Your task to perform on an android device: Search for "rayovac triple a" on walmart.com, select the first entry, add it to the cart, then select checkout. Image 0: 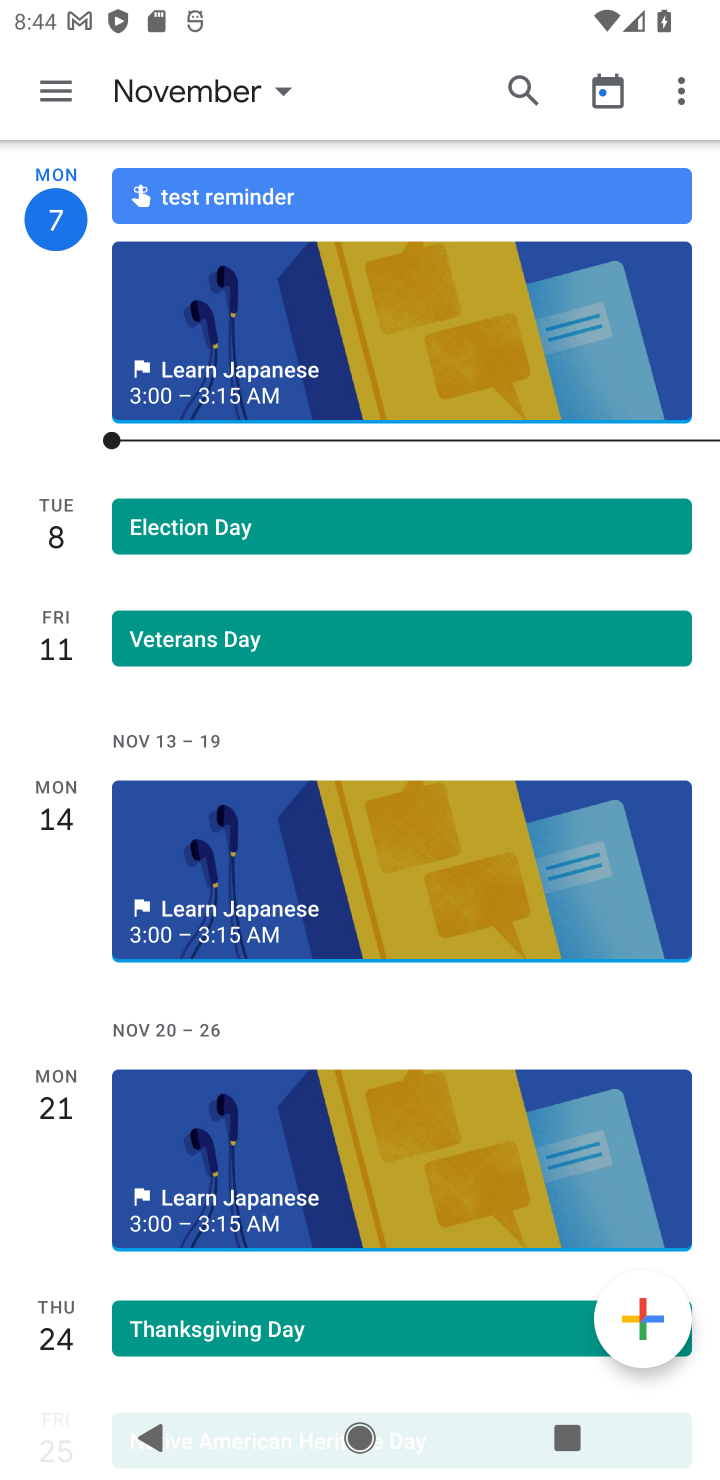
Step 0: press home button
Your task to perform on an android device: Search for "rayovac triple a" on walmart.com, select the first entry, add it to the cart, then select checkout. Image 1: 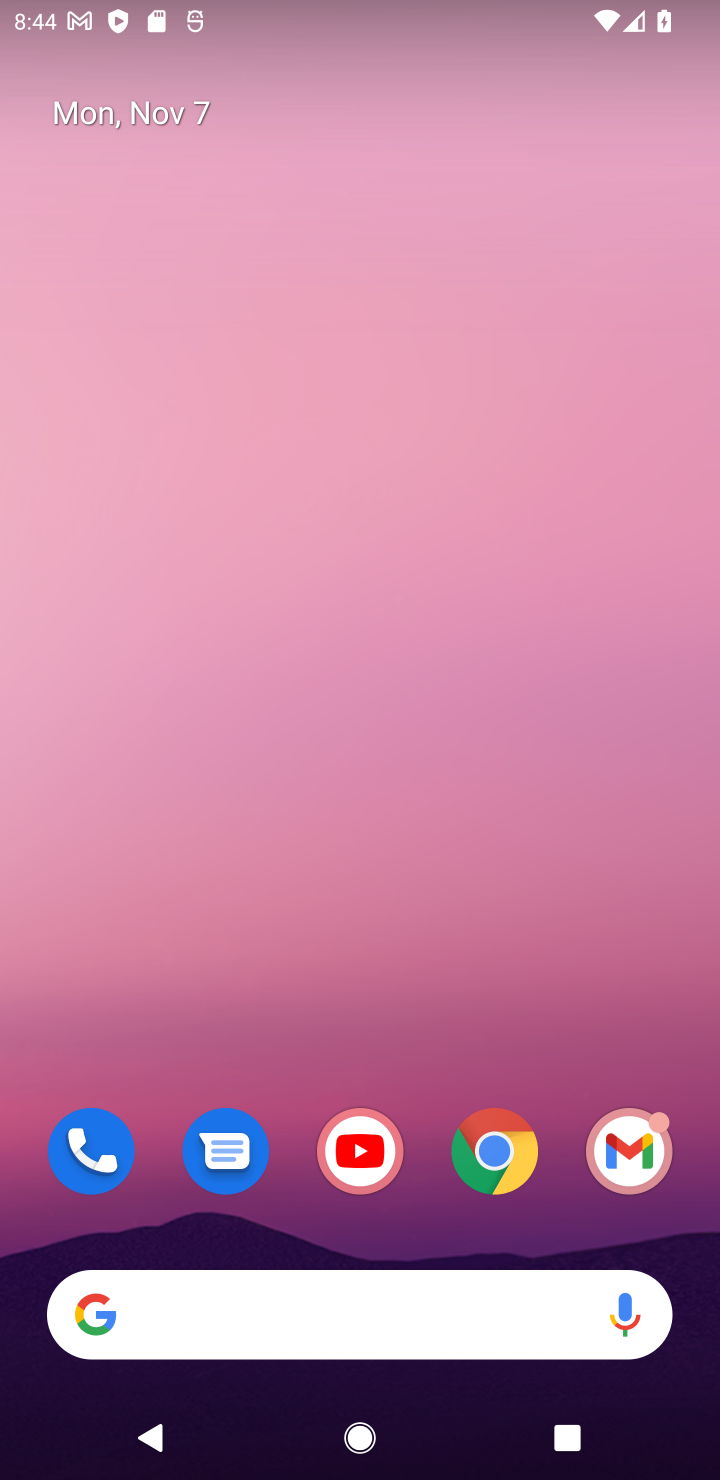
Step 1: click (503, 1144)
Your task to perform on an android device: Search for "rayovac triple a" on walmart.com, select the first entry, add it to the cart, then select checkout. Image 2: 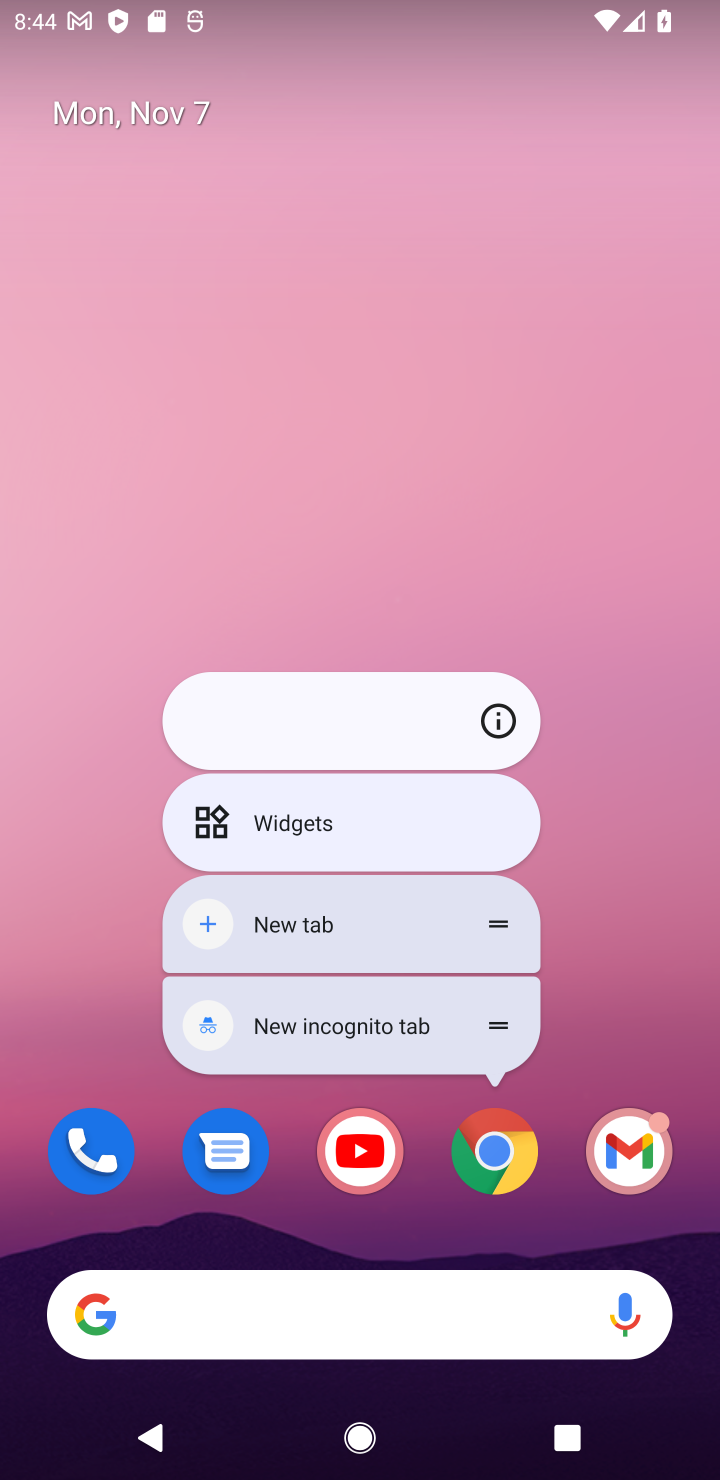
Step 2: click (493, 1154)
Your task to perform on an android device: Search for "rayovac triple a" on walmart.com, select the first entry, add it to the cart, then select checkout. Image 3: 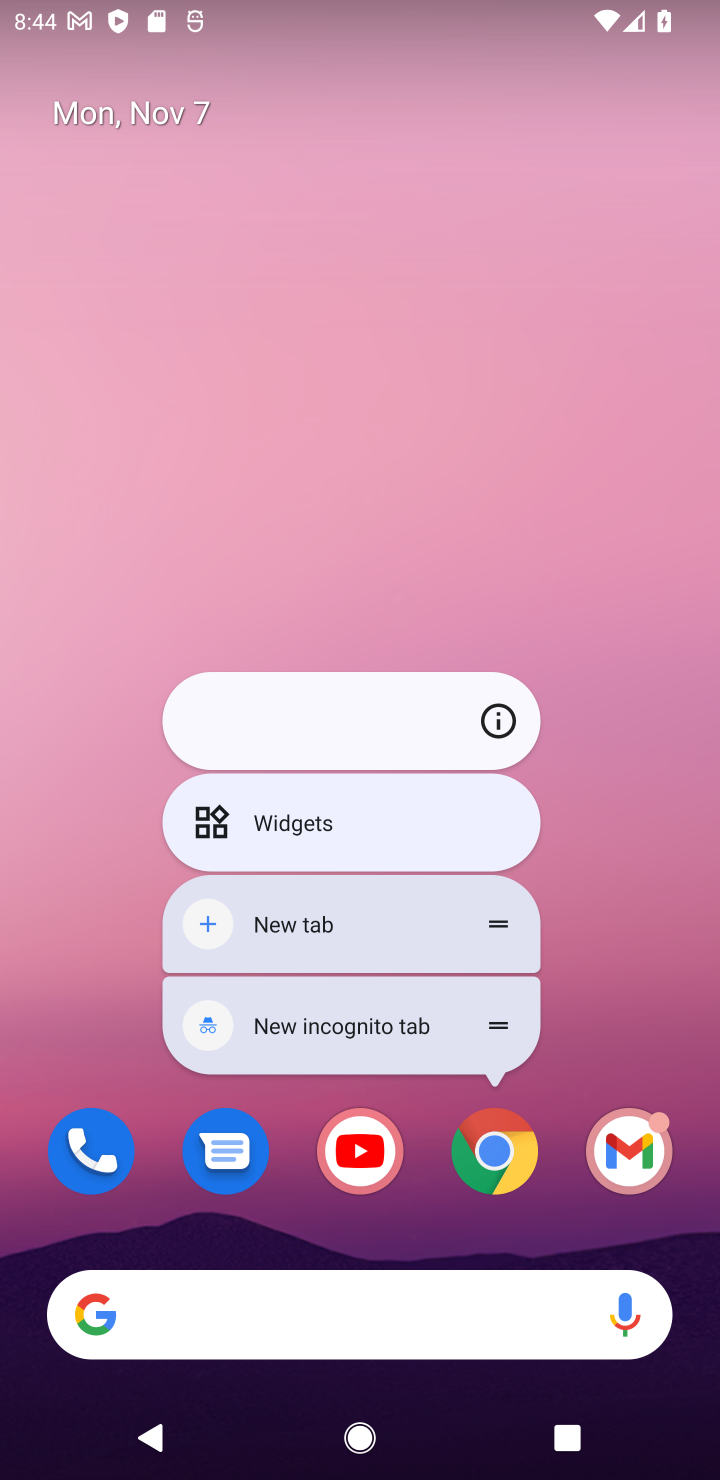
Step 3: click (502, 1165)
Your task to perform on an android device: Search for "rayovac triple a" on walmart.com, select the first entry, add it to the cart, then select checkout. Image 4: 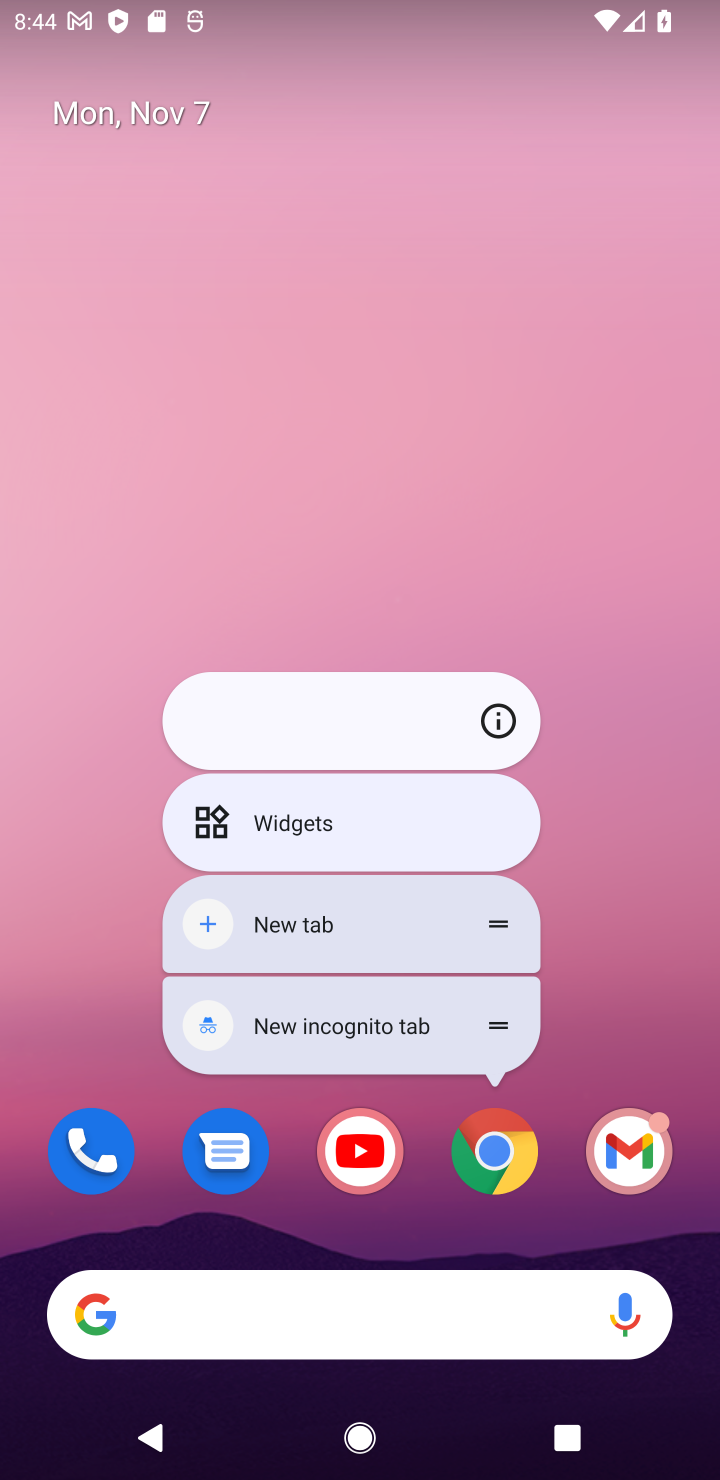
Step 4: click (499, 1154)
Your task to perform on an android device: Search for "rayovac triple a" on walmart.com, select the first entry, add it to the cart, then select checkout. Image 5: 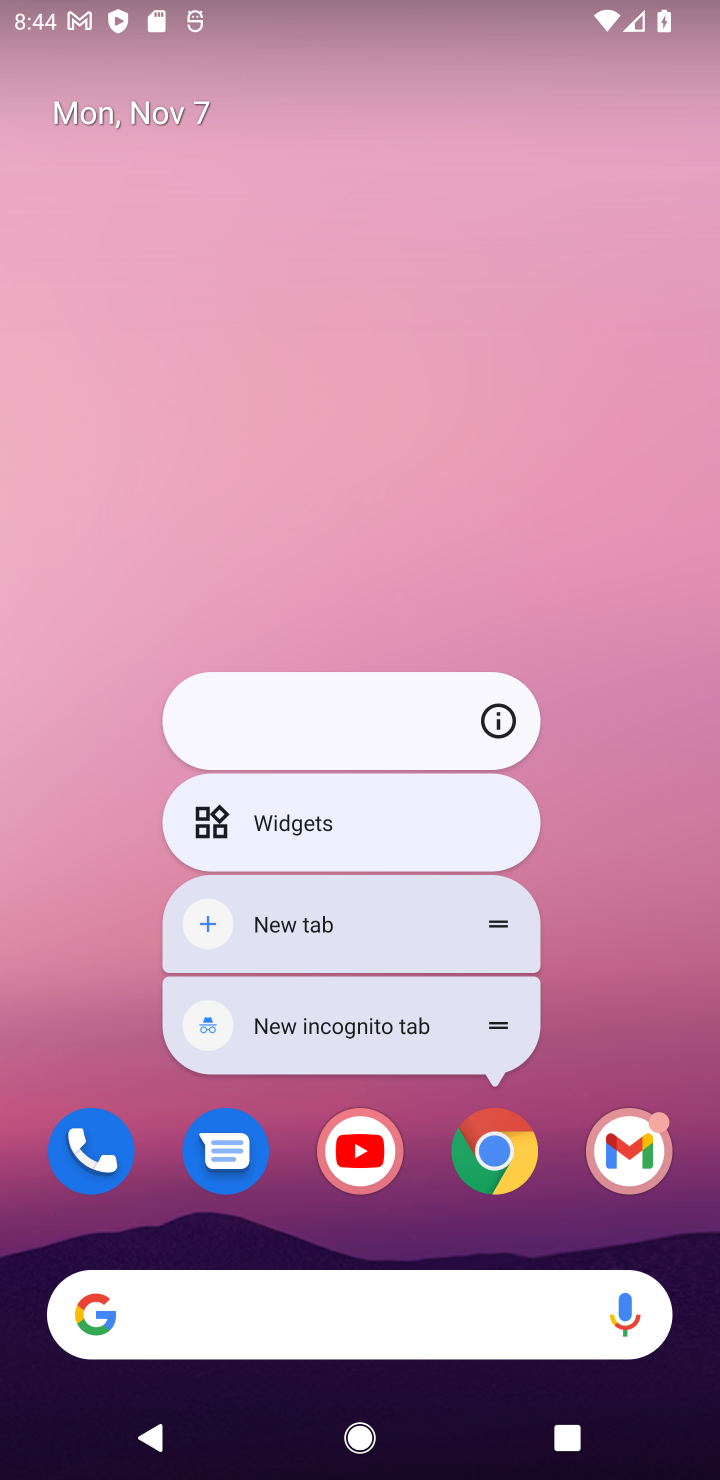
Step 5: click (499, 1156)
Your task to perform on an android device: Search for "rayovac triple a" on walmart.com, select the first entry, add it to the cart, then select checkout. Image 6: 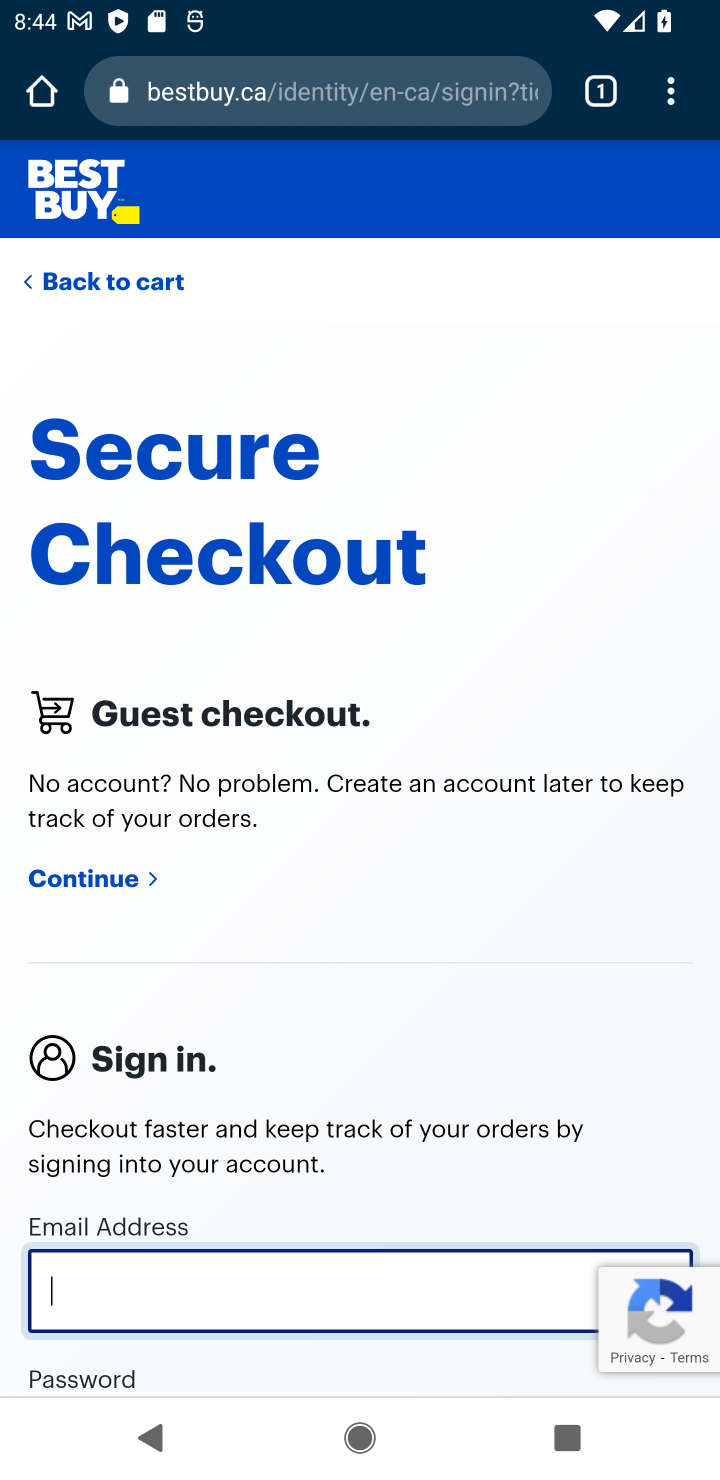
Step 6: click (296, 84)
Your task to perform on an android device: Search for "rayovac triple a" on walmart.com, select the first entry, add it to the cart, then select checkout. Image 7: 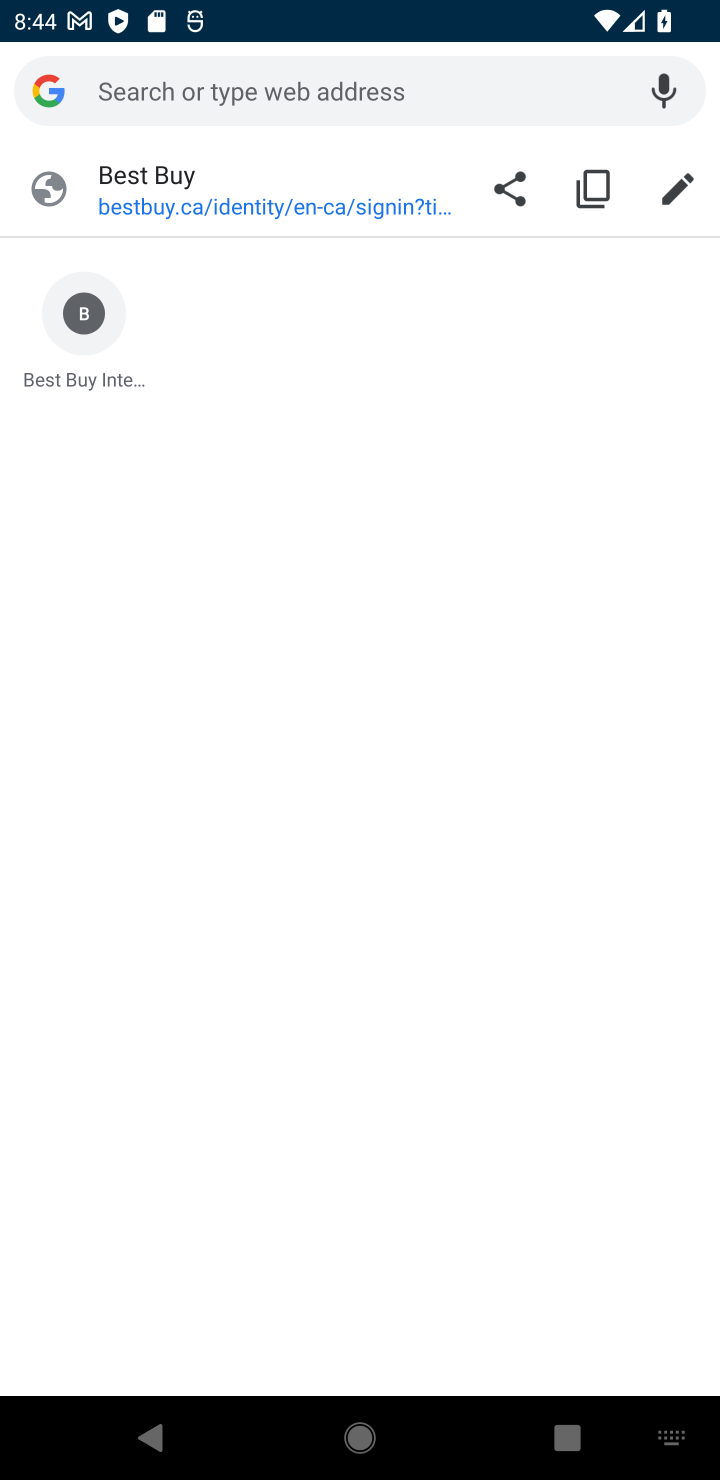
Step 7: type "walmart.com"
Your task to perform on an android device: Search for "rayovac triple a" on walmart.com, select the first entry, add it to the cart, then select checkout. Image 8: 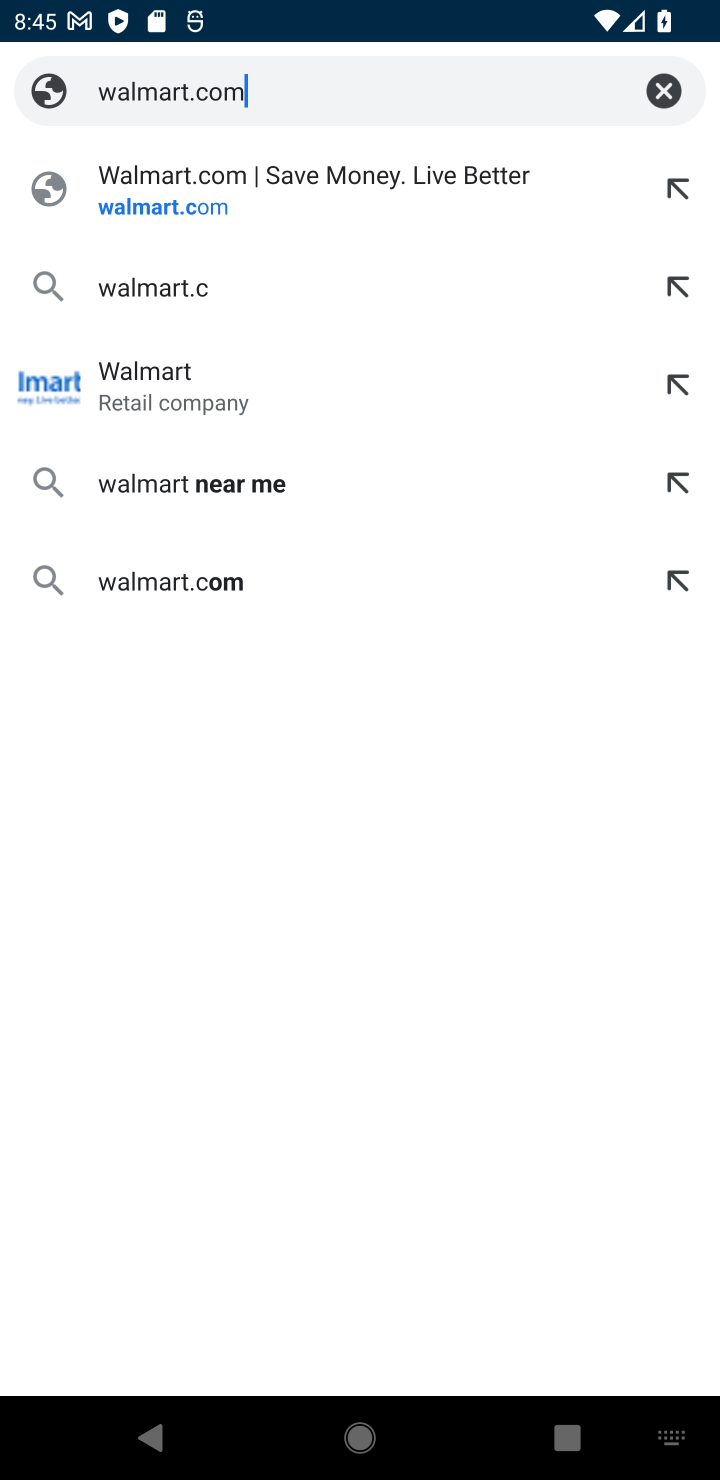
Step 8: press enter
Your task to perform on an android device: Search for "rayovac triple a" on walmart.com, select the first entry, add it to the cart, then select checkout. Image 9: 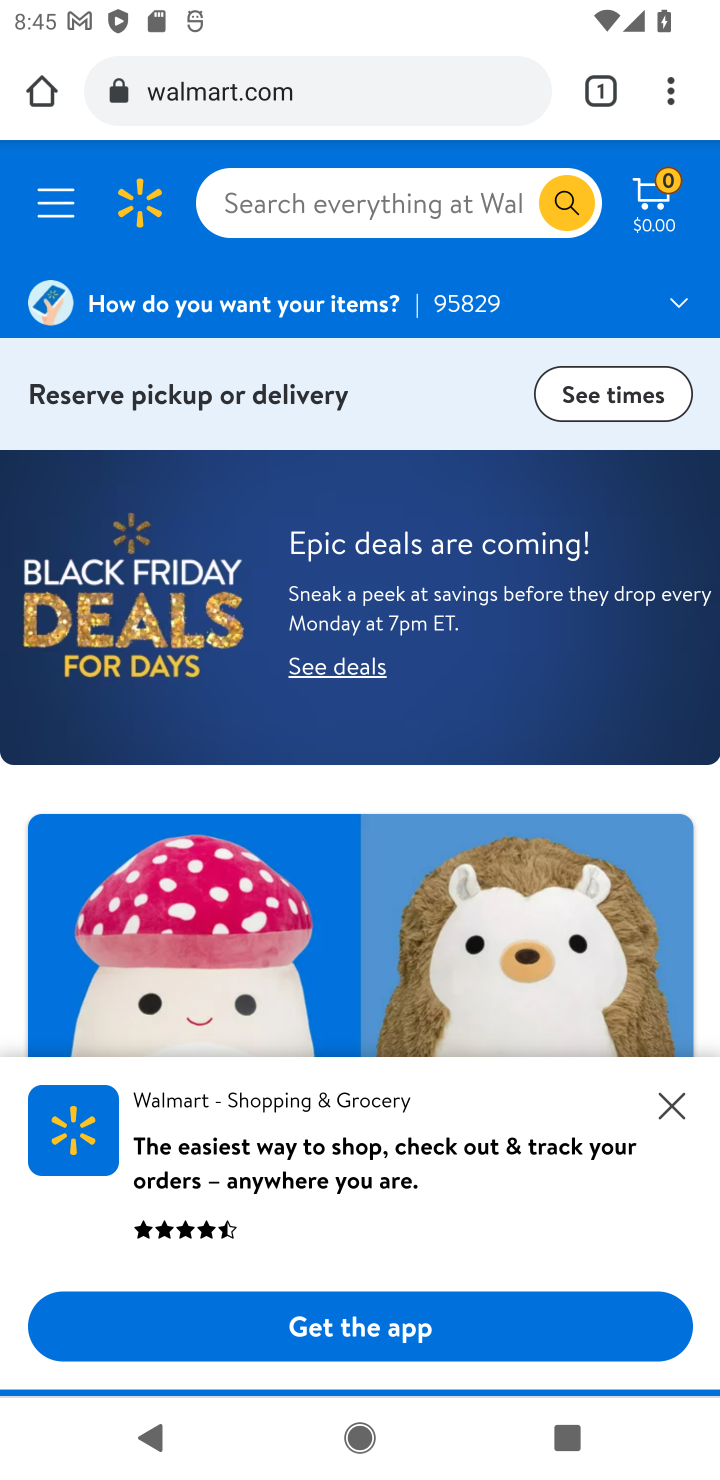
Step 9: click (346, 184)
Your task to perform on an android device: Search for "rayovac triple a" on walmart.com, select the first entry, add it to the cart, then select checkout. Image 10: 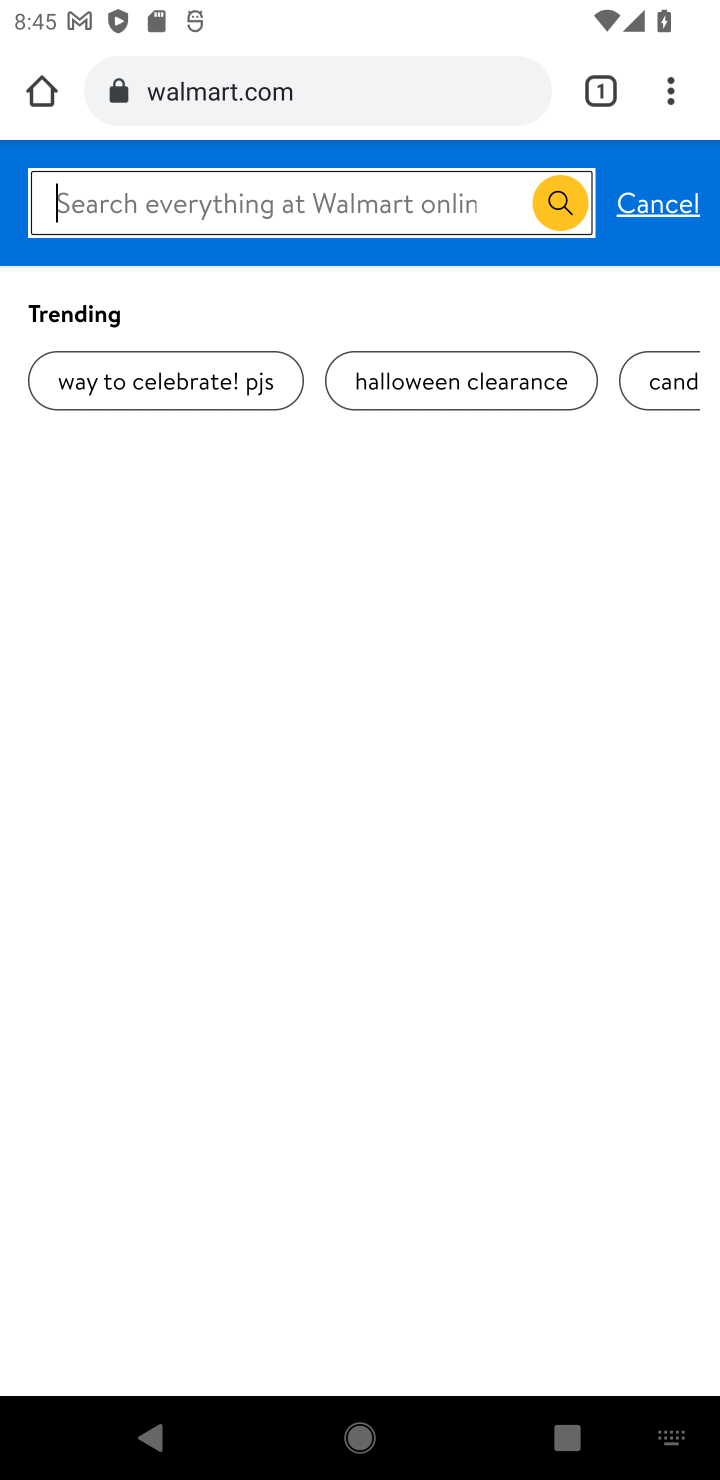
Step 10: type "rayovac triple a"
Your task to perform on an android device: Search for "rayovac triple a" on walmart.com, select the first entry, add it to the cart, then select checkout. Image 11: 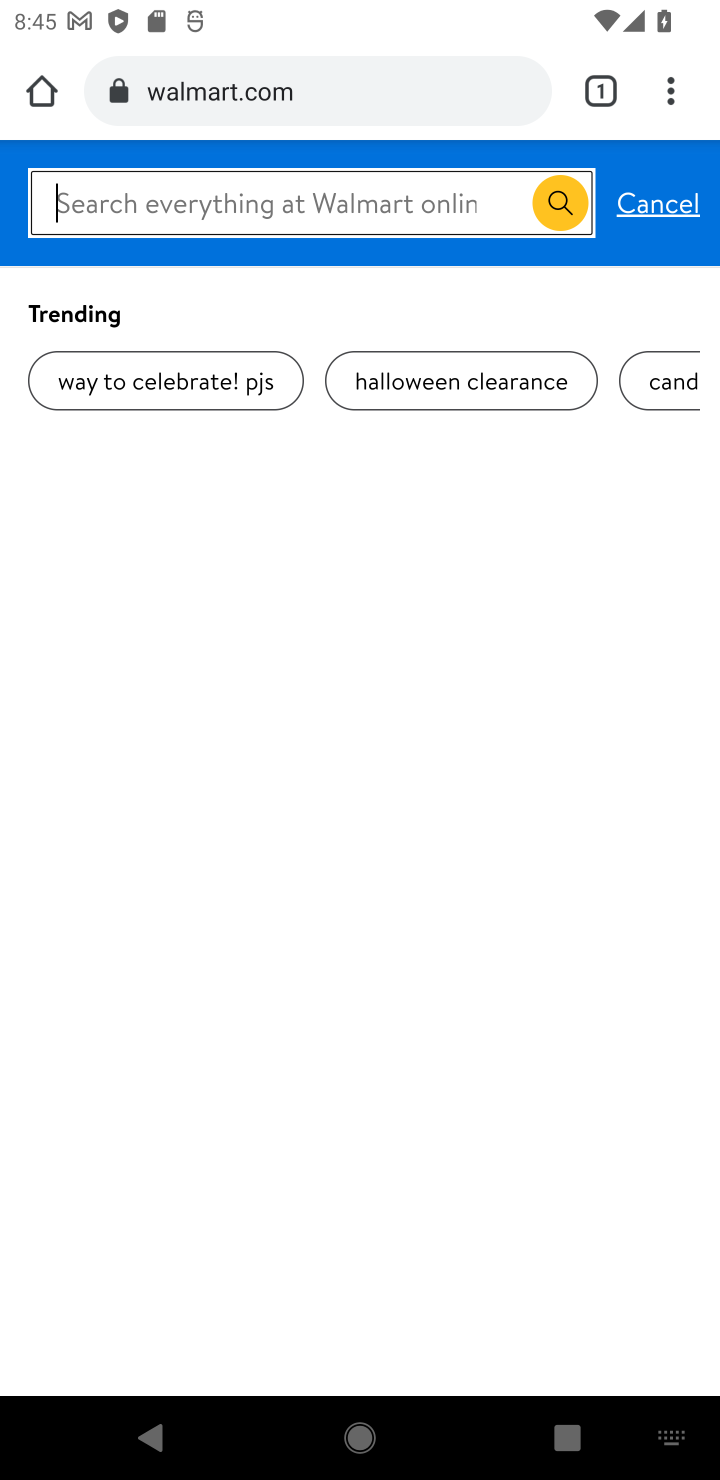
Step 11: press enter
Your task to perform on an android device: Search for "rayovac triple a" on walmart.com, select the first entry, add it to the cart, then select checkout. Image 12: 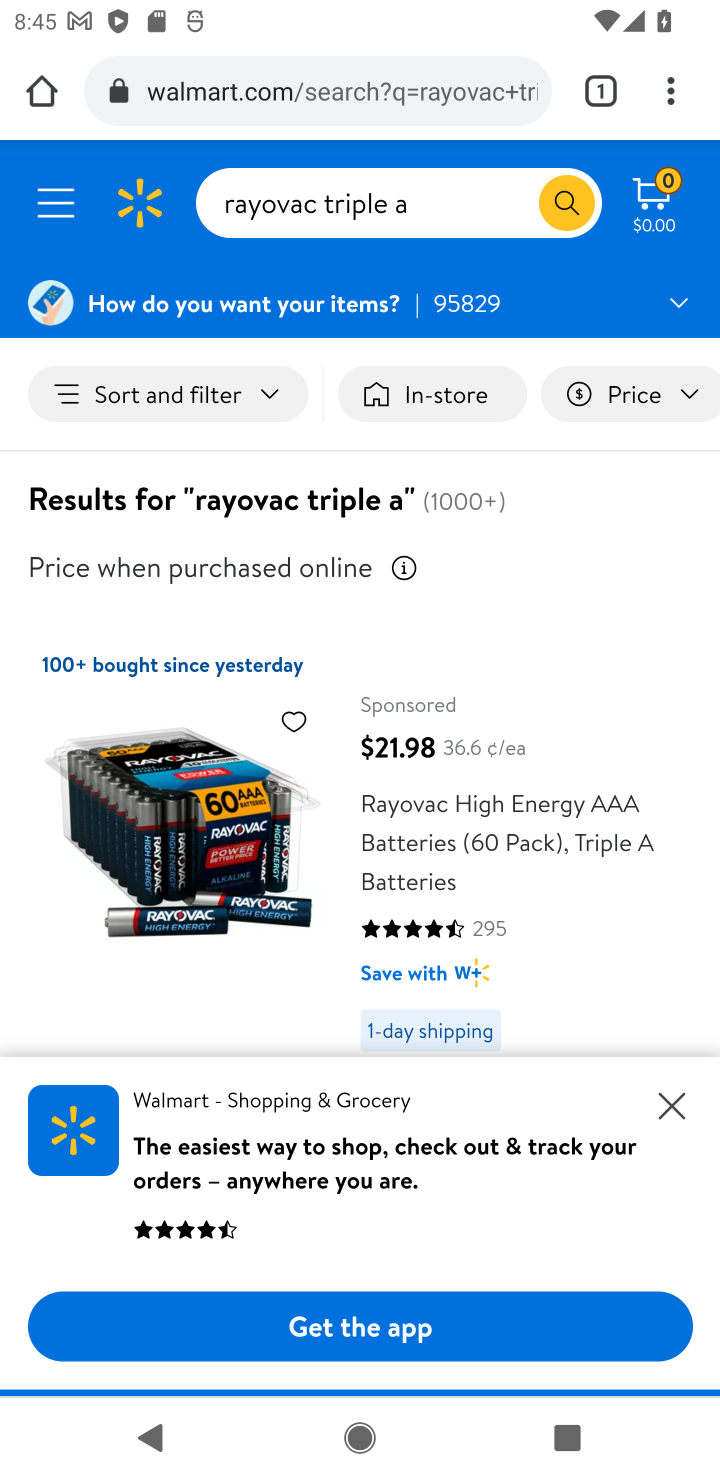
Step 12: click (670, 1105)
Your task to perform on an android device: Search for "rayovac triple a" on walmart.com, select the first entry, add it to the cart, then select checkout. Image 13: 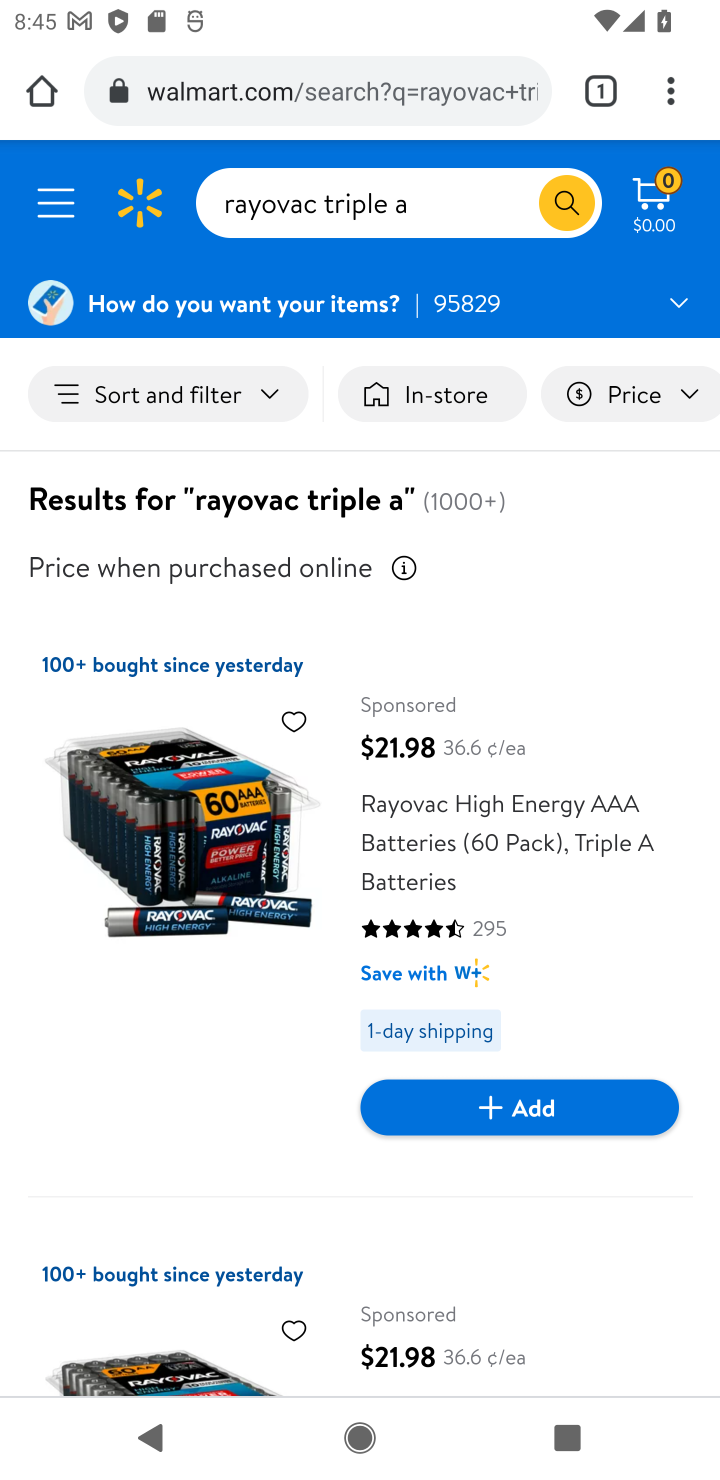
Step 13: click (424, 834)
Your task to perform on an android device: Search for "rayovac triple a" on walmart.com, select the first entry, add it to the cart, then select checkout. Image 14: 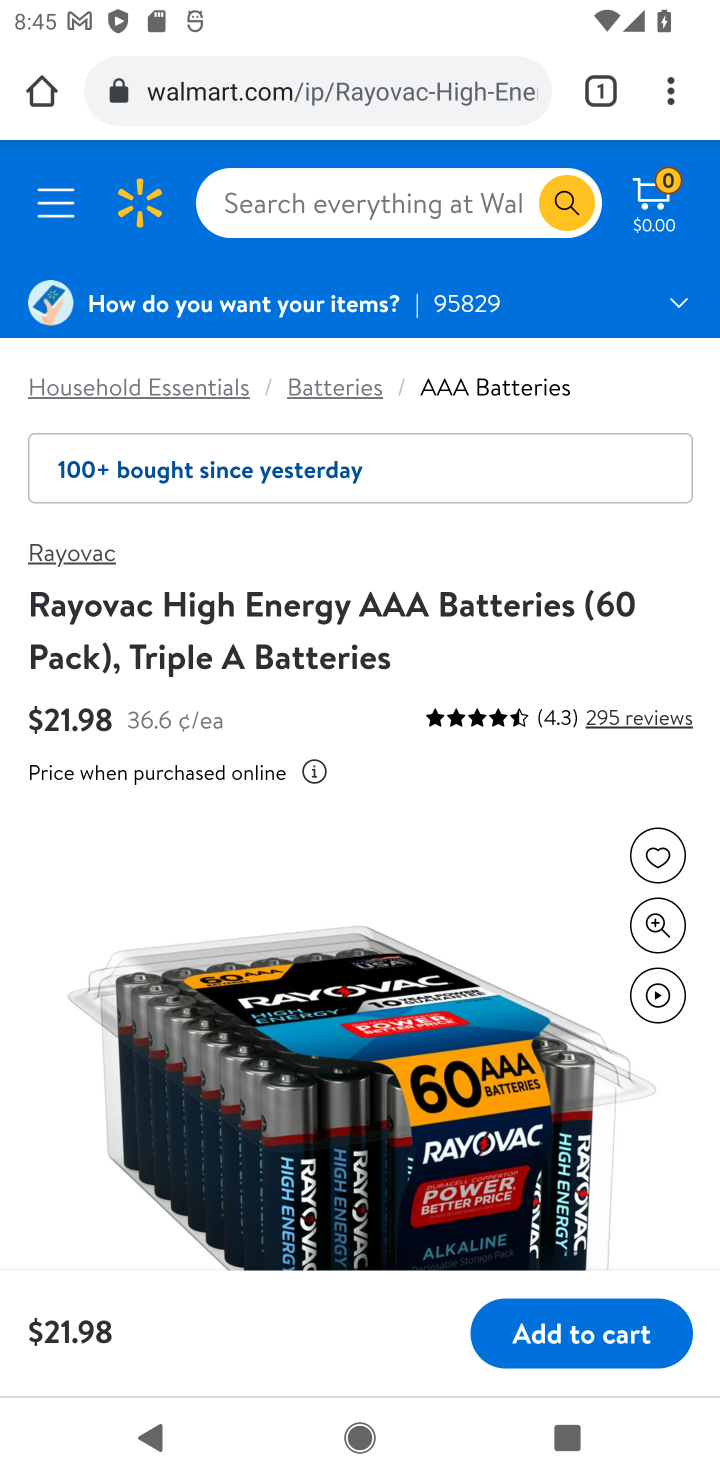
Step 14: click (573, 1332)
Your task to perform on an android device: Search for "rayovac triple a" on walmart.com, select the first entry, add it to the cart, then select checkout. Image 15: 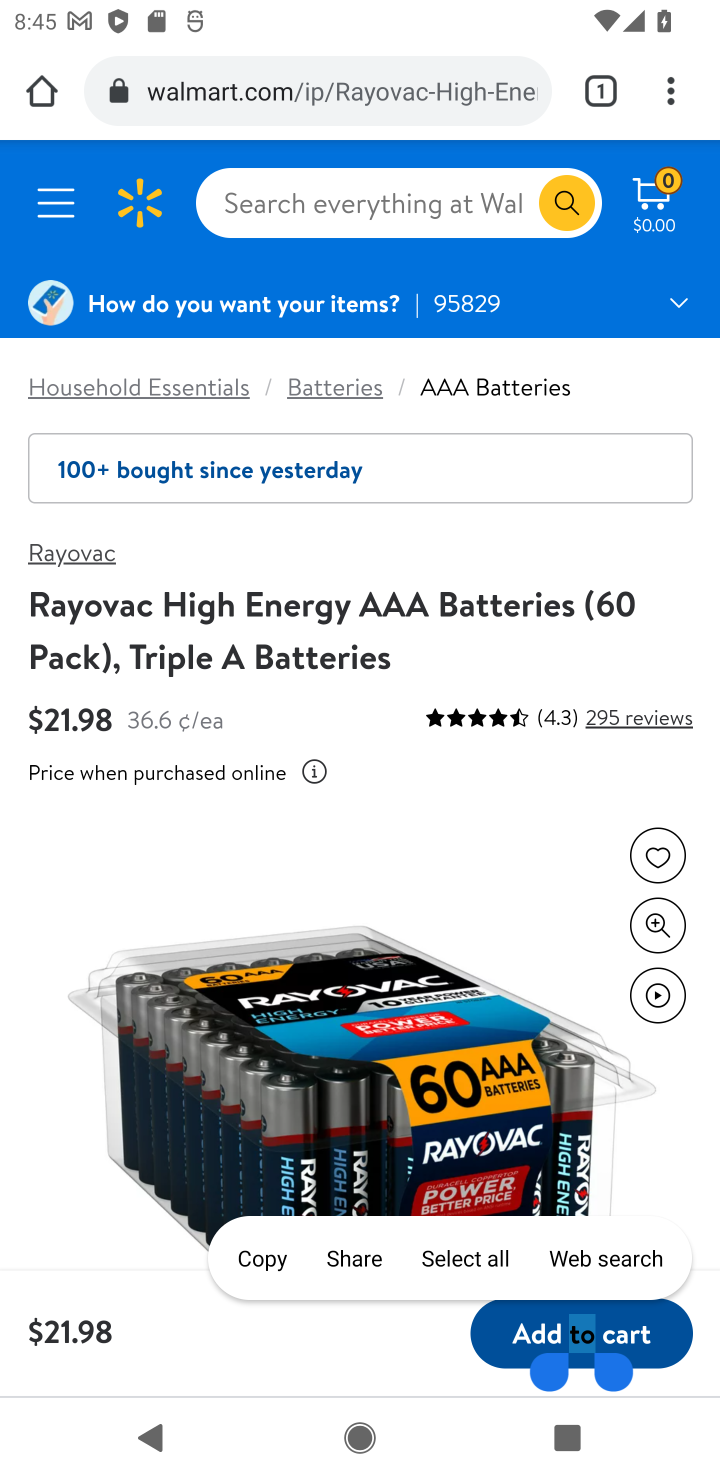
Step 15: click (598, 1333)
Your task to perform on an android device: Search for "rayovac triple a" on walmart.com, select the first entry, add it to the cart, then select checkout. Image 16: 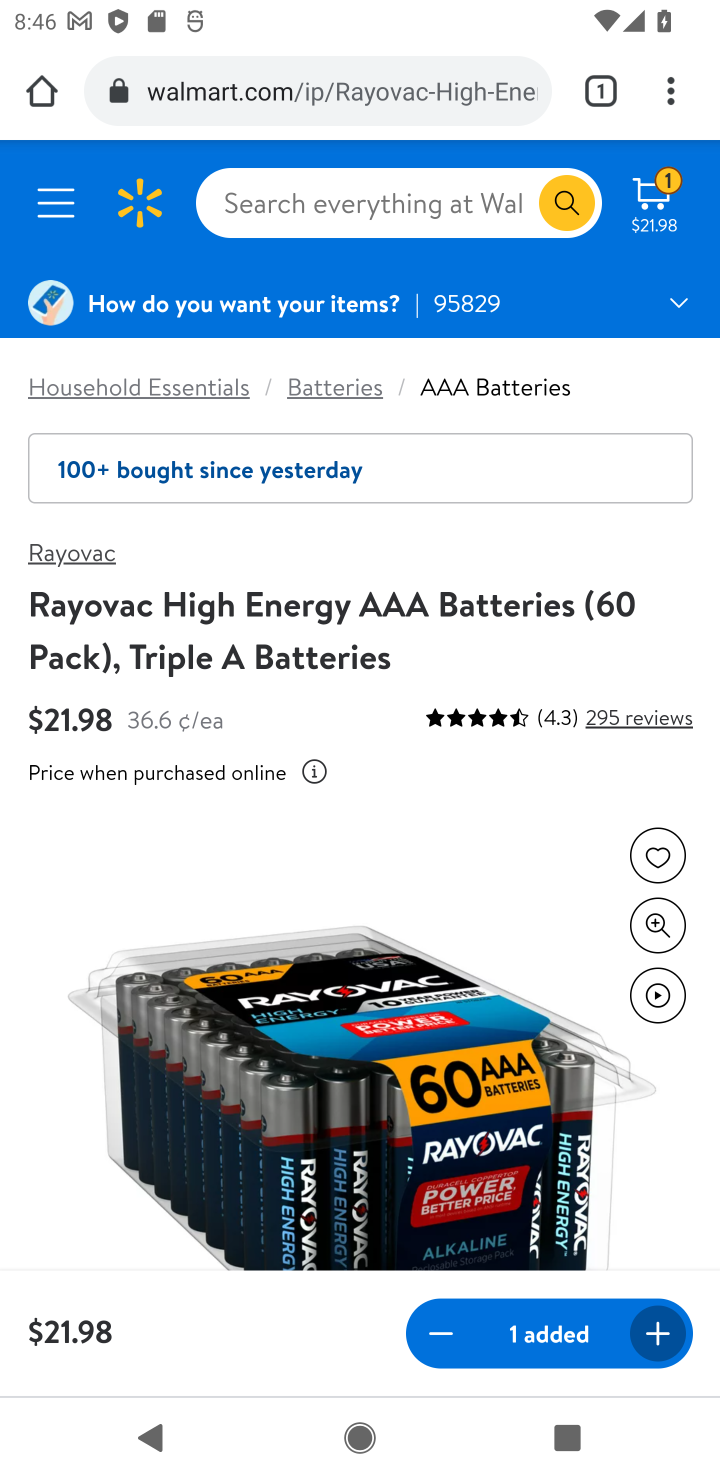
Step 16: click (661, 179)
Your task to perform on an android device: Search for "rayovac triple a" on walmart.com, select the first entry, add it to the cart, then select checkout. Image 17: 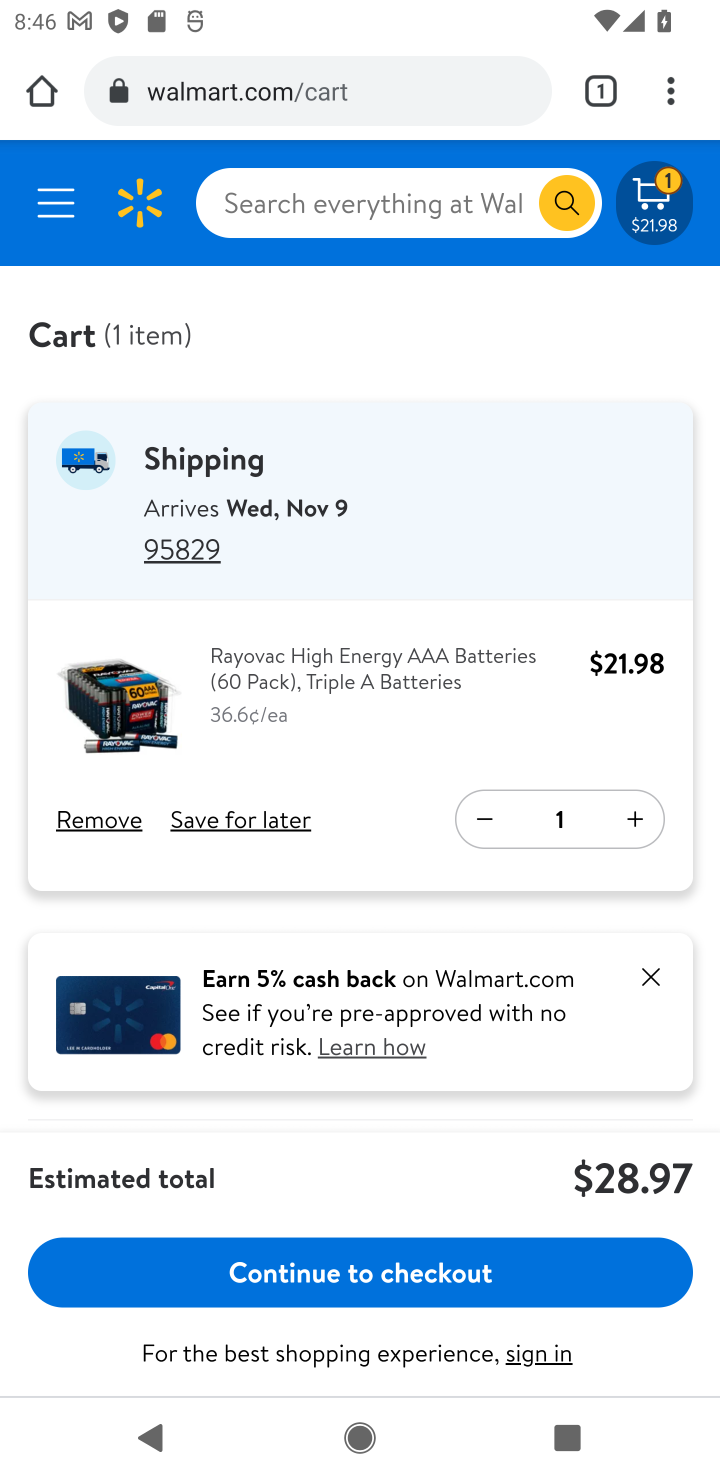
Step 17: click (351, 1275)
Your task to perform on an android device: Search for "rayovac triple a" on walmart.com, select the first entry, add it to the cart, then select checkout. Image 18: 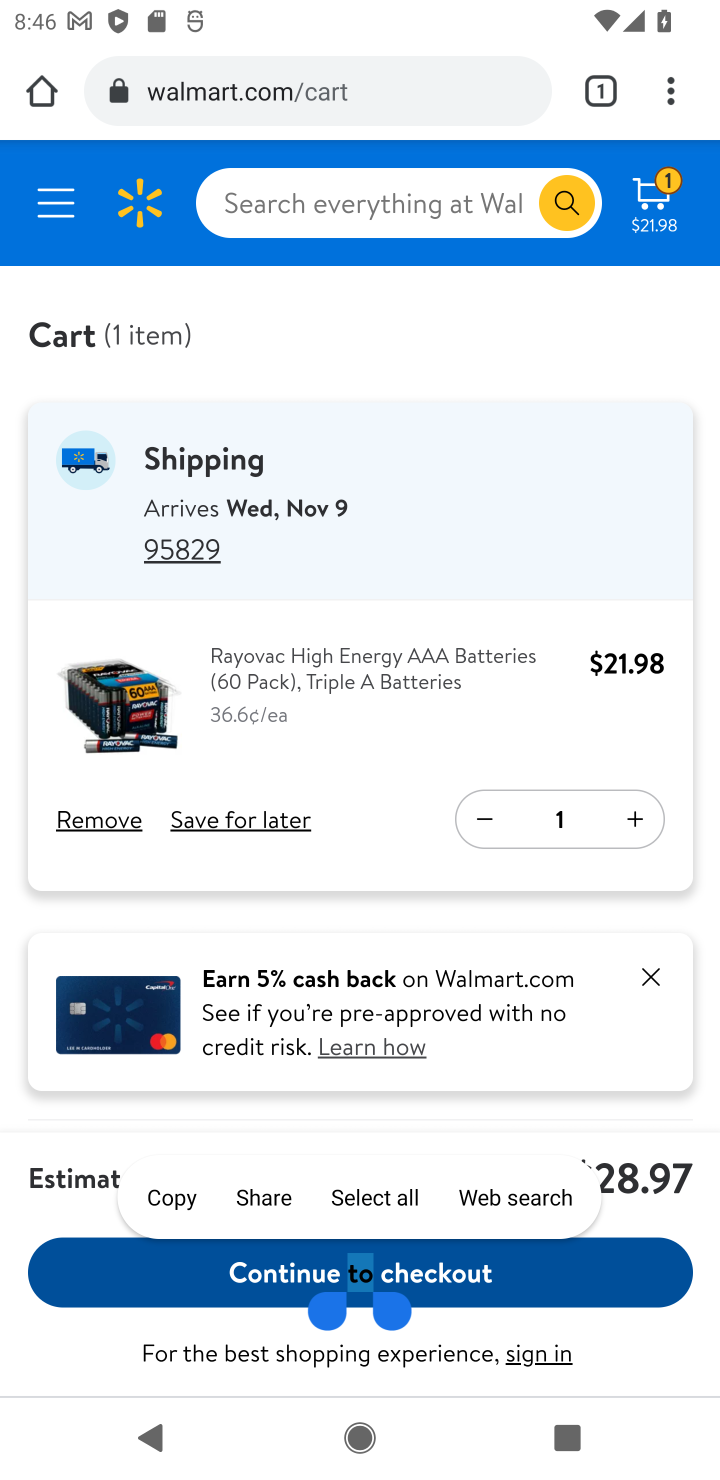
Step 18: click (313, 1271)
Your task to perform on an android device: Search for "rayovac triple a" on walmart.com, select the first entry, add it to the cart, then select checkout. Image 19: 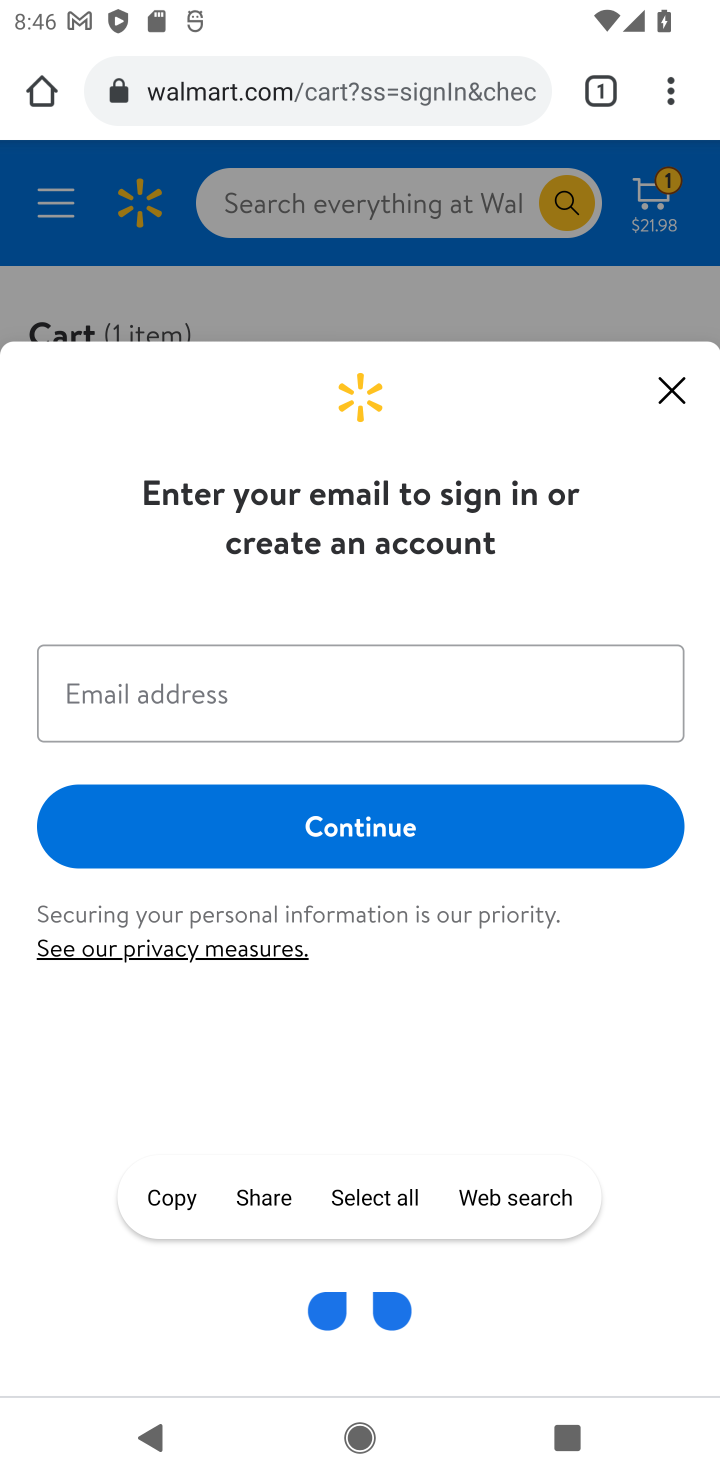
Step 19: task complete